Your task to perform on an android device: check battery use Image 0: 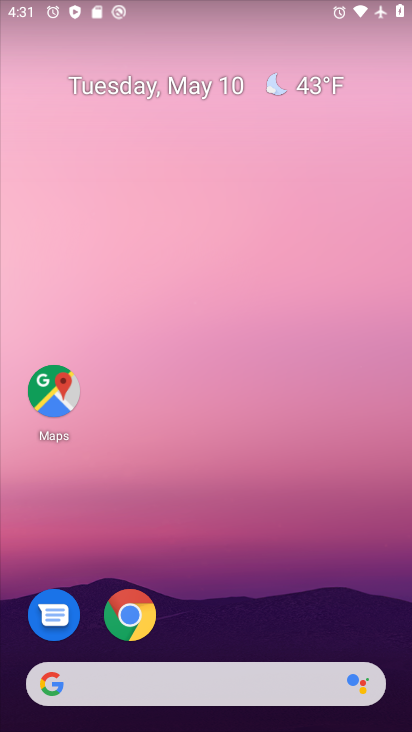
Step 0: drag from (276, 514) to (198, 22)
Your task to perform on an android device: check battery use Image 1: 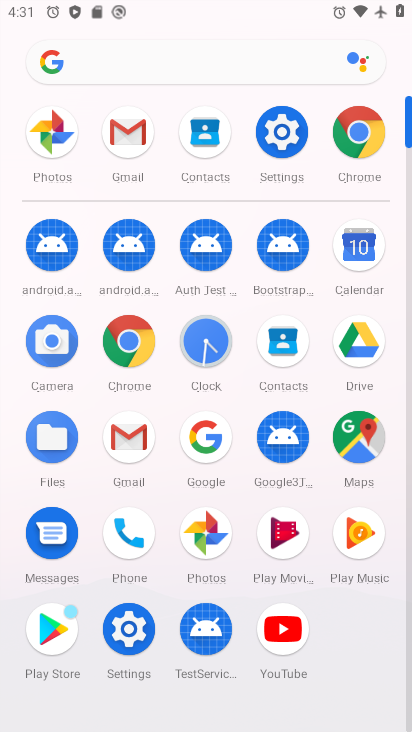
Step 1: click (282, 125)
Your task to perform on an android device: check battery use Image 2: 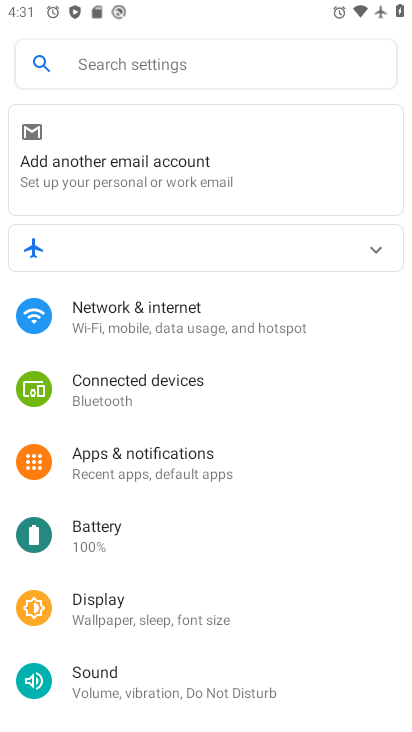
Step 2: drag from (284, 588) to (285, 128)
Your task to perform on an android device: check battery use Image 3: 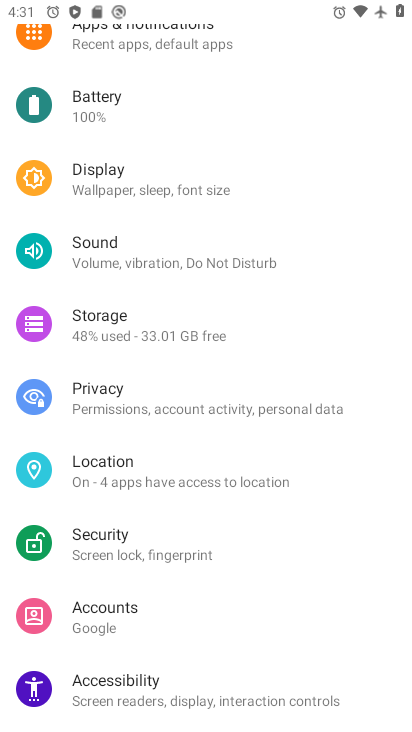
Step 3: drag from (272, 567) to (291, 161)
Your task to perform on an android device: check battery use Image 4: 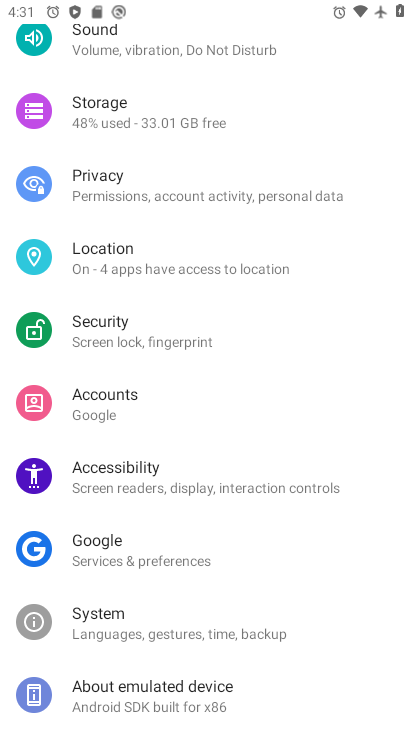
Step 4: drag from (257, 567) to (260, 185)
Your task to perform on an android device: check battery use Image 5: 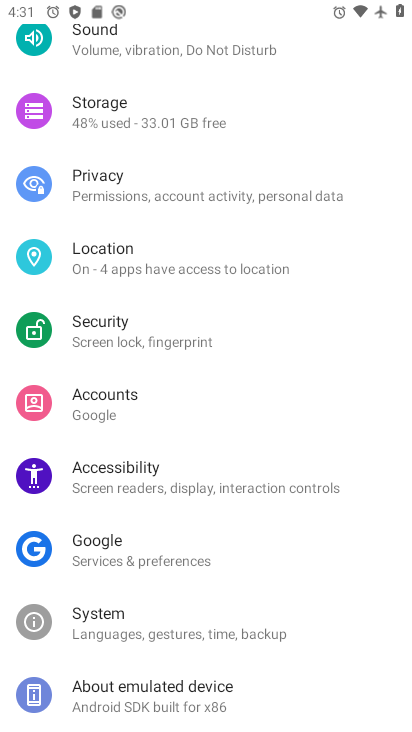
Step 5: drag from (259, 175) to (228, 653)
Your task to perform on an android device: check battery use Image 6: 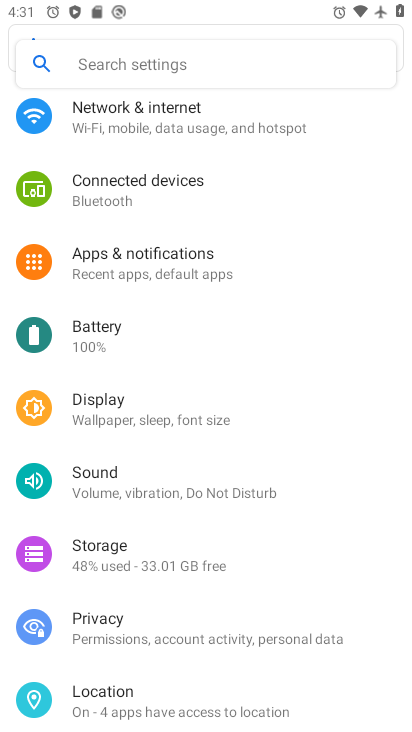
Step 6: click (117, 338)
Your task to perform on an android device: check battery use Image 7: 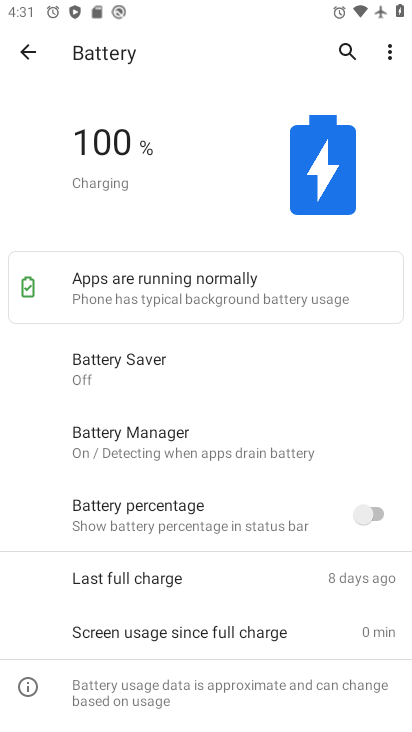
Step 7: task complete